Your task to perform on an android device: Open the stopwatch Image 0: 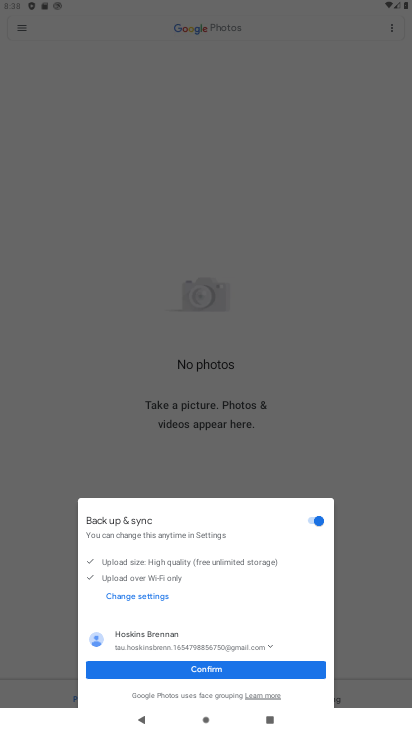
Step 0: press home button
Your task to perform on an android device: Open the stopwatch Image 1: 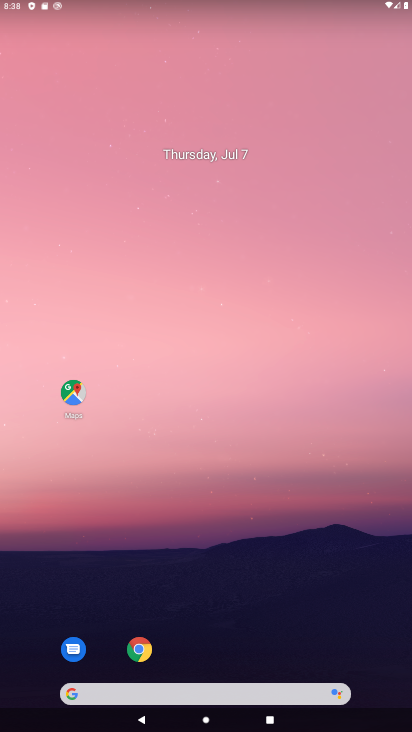
Step 1: drag from (240, 688) to (252, 167)
Your task to perform on an android device: Open the stopwatch Image 2: 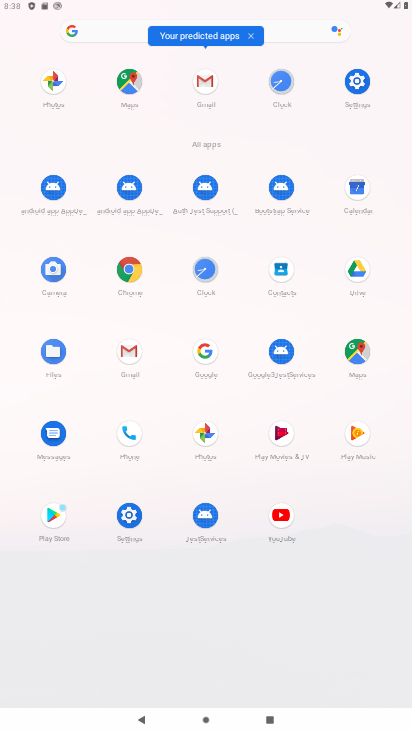
Step 2: click (209, 274)
Your task to perform on an android device: Open the stopwatch Image 3: 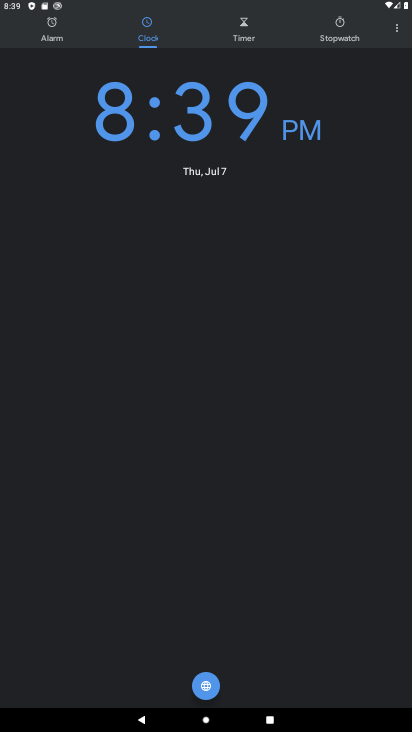
Step 3: click (344, 25)
Your task to perform on an android device: Open the stopwatch Image 4: 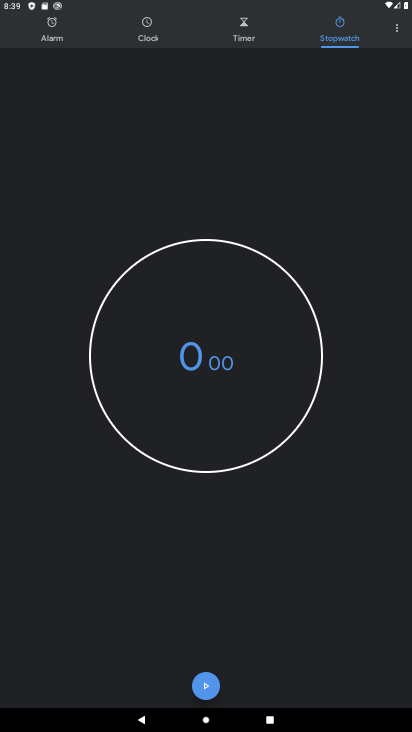
Step 4: task complete